Your task to perform on an android device: Open CNN.com Image 0: 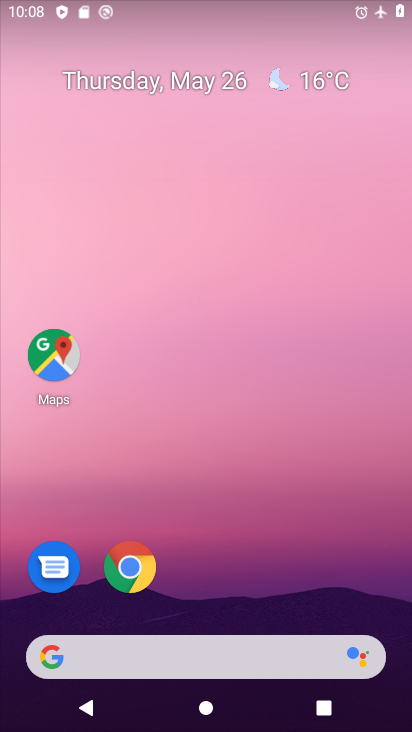
Step 0: click (130, 550)
Your task to perform on an android device: Open CNN.com Image 1: 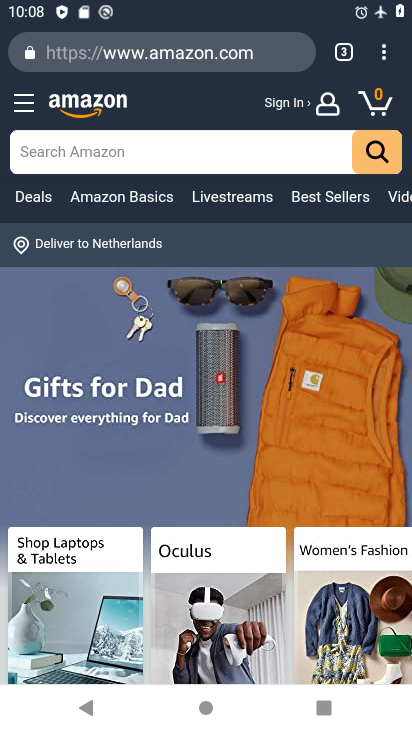
Step 1: click (253, 38)
Your task to perform on an android device: Open CNN.com Image 2: 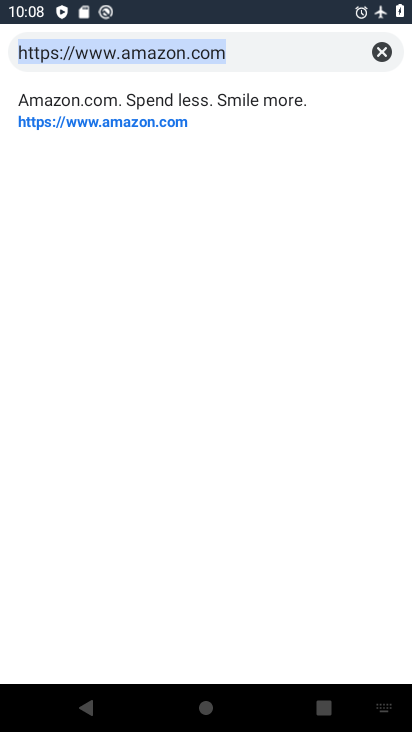
Step 2: click (376, 54)
Your task to perform on an android device: Open CNN.com Image 3: 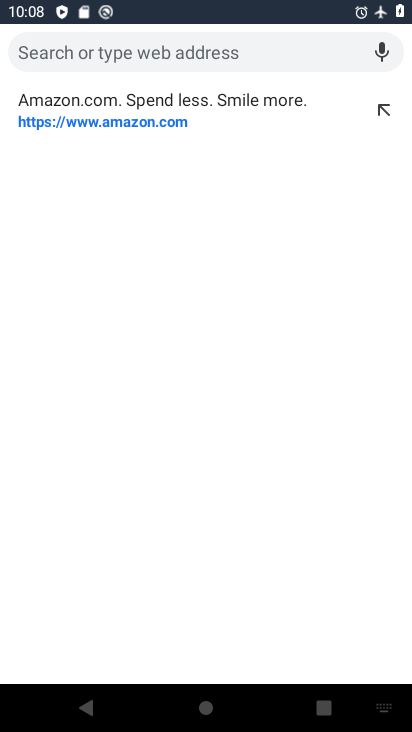
Step 3: type "CNN.com"
Your task to perform on an android device: Open CNN.com Image 4: 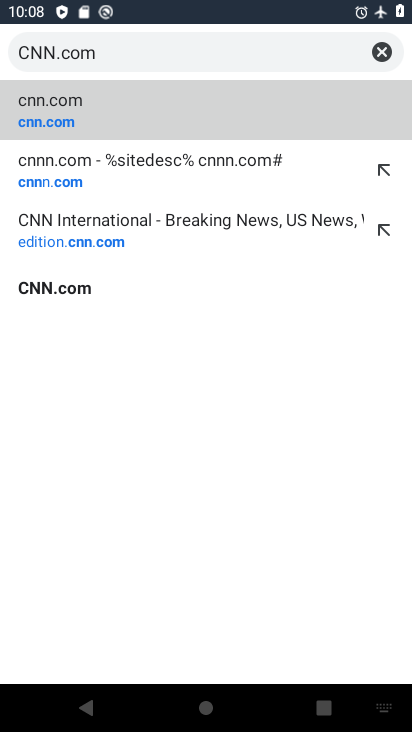
Step 4: click (79, 289)
Your task to perform on an android device: Open CNN.com Image 5: 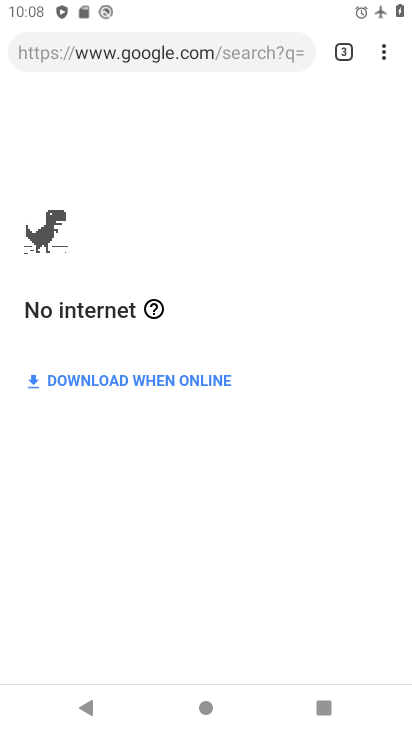
Step 5: task complete